Your task to perform on an android device: Search for "sony triple a" on ebay, select the first entry, add it to the cart, then select checkout. Image 0: 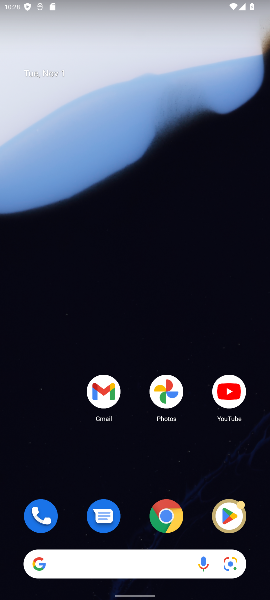
Step 0: click (162, 507)
Your task to perform on an android device: Search for "sony triple a" on ebay, select the first entry, add it to the cart, then select checkout. Image 1: 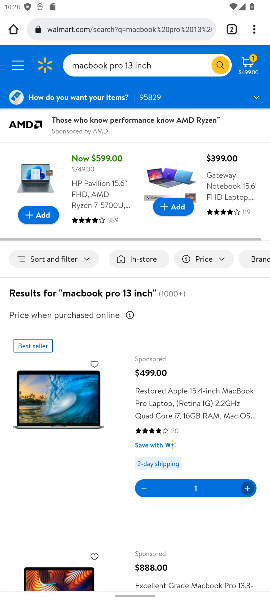
Step 1: click (232, 32)
Your task to perform on an android device: Search for "sony triple a" on ebay, select the first entry, add it to the cart, then select checkout. Image 2: 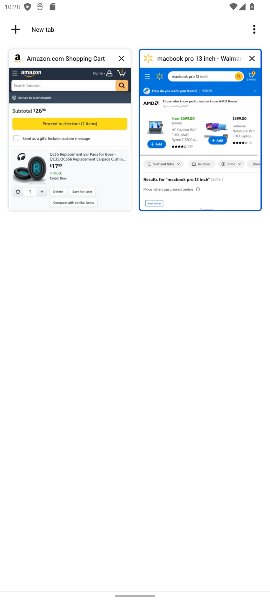
Step 2: click (14, 31)
Your task to perform on an android device: Search for "sony triple a" on ebay, select the first entry, add it to the cart, then select checkout. Image 3: 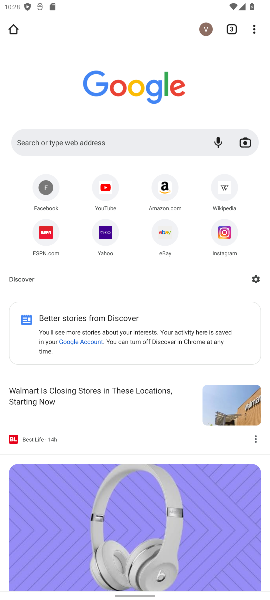
Step 3: click (120, 150)
Your task to perform on an android device: Search for "sony triple a" on ebay, select the first entry, add it to the cart, then select checkout. Image 4: 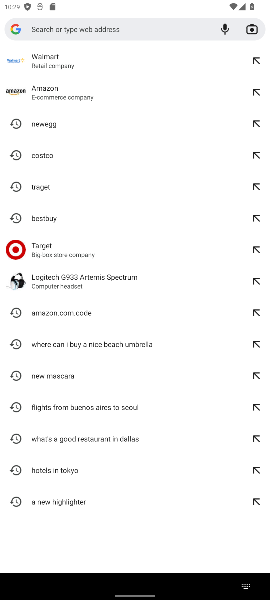
Step 4: type "ebay"
Your task to perform on an android device: Search for "sony triple a" on ebay, select the first entry, add it to the cart, then select checkout. Image 5: 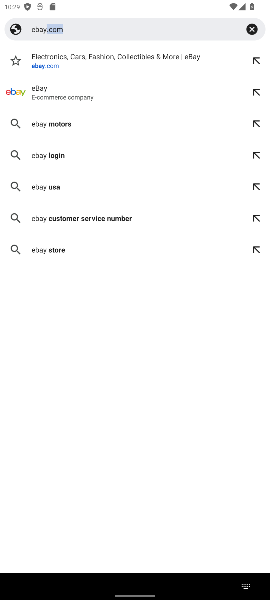
Step 5: click (76, 100)
Your task to perform on an android device: Search for "sony triple a" on ebay, select the first entry, add it to the cart, then select checkout. Image 6: 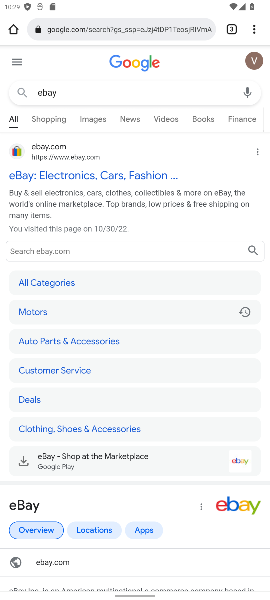
Step 6: click (70, 174)
Your task to perform on an android device: Search for "sony triple a" on ebay, select the first entry, add it to the cart, then select checkout. Image 7: 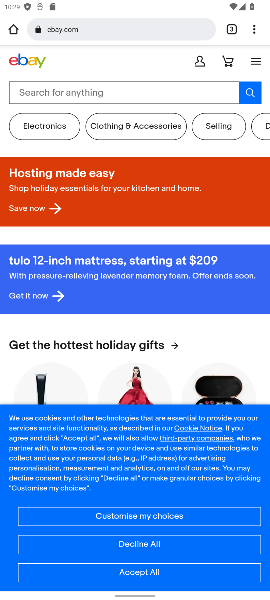
Step 7: click (139, 547)
Your task to perform on an android device: Search for "sony triple a" on ebay, select the first entry, add it to the cart, then select checkout. Image 8: 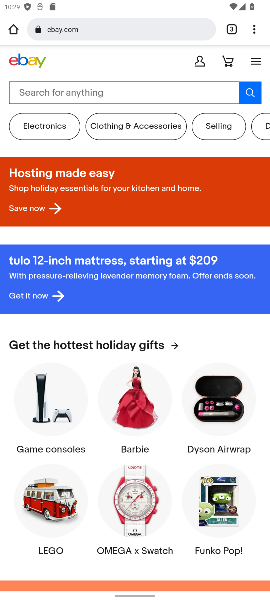
Step 8: click (88, 90)
Your task to perform on an android device: Search for "sony triple a" on ebay, select the first entry, add it to the cart, then select checkout. Image 9: 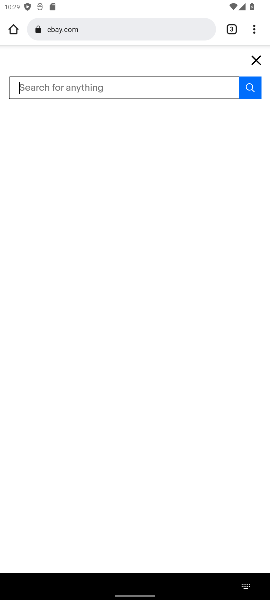
Step 9: type "sony trlpe a battery"
Your task to perform on an android device: Search for "sony triple a" on ebay, select the first entry, add it to the cart, then select checkout. Image 10: 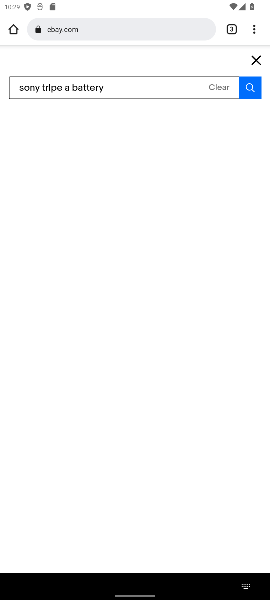
Step 10: click (249, 87)
Your task to perform on an android device: Search for "sony triple a" on ebay, select the first entry, add it to the cart, then select checkout. Image 11: 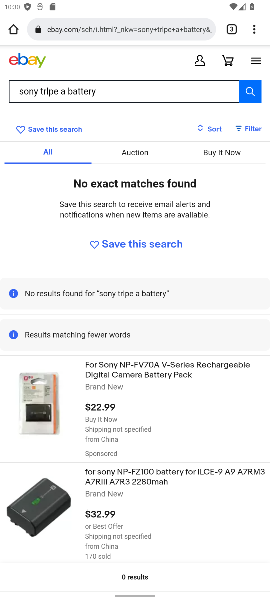
Step 11: click (119, 366)
Your task to perform on an android device: Search for "sony triple a" on ebay, select the first entry, add it to the cart, then select checkout. Image 12: 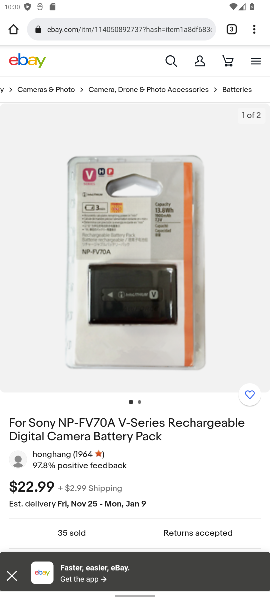
Step 12: drag from (136, 473) to (175, 276)
Your task to perform on an android device: Search for "sony triple a" on ebay, select the first entry, add it to the cart, then select checkout. Image 13: 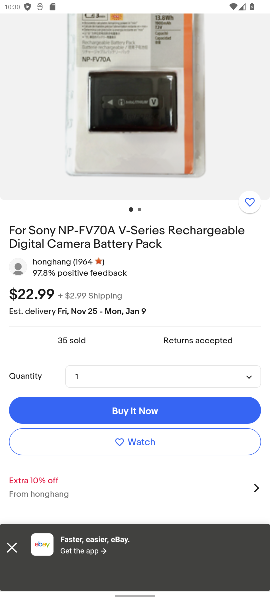
Step 13: press back button
Your task to perform on an android device: Search for "sony triple a" on ebay, select the first entry, add it to the cart, then select checkout. Image 14: 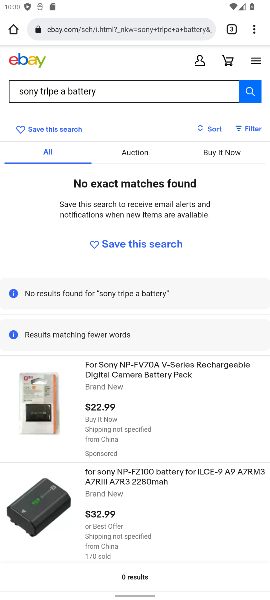
Step 14: drag from (134, 492) to (162, 223)
Your task to perform on an android device: Search for "sony triple a" on ebay, select the first entry, add it to the cart, then select checkout. Image 15: 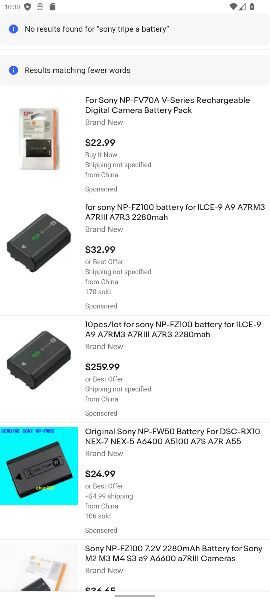
Step 15: click (121, 554)
Your task to perform on an android device: Search for "sony triple a" on ebay, select the first entry, add it to the cart, then select checkout. Image 16: 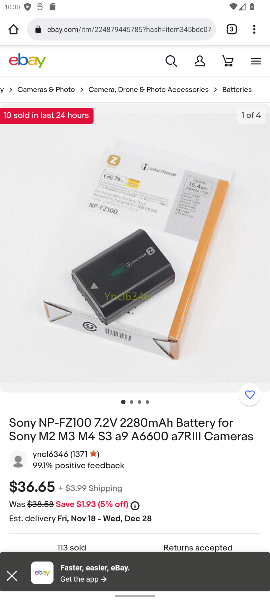
Step 16: drag from (143, 462) to (208, 237)
Your task to perform on an android device: Search for "sony triple a" on ebay, select the first entry, add it to the cart, then select checkout. Image 17: 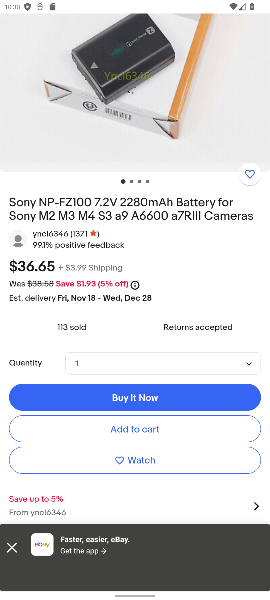
Step 17: click (136, 431)
Your task to perform on an android device: Search for "sony triple a" on ebay, select the first entry, add it to the cart, then select checkout. Image 18: 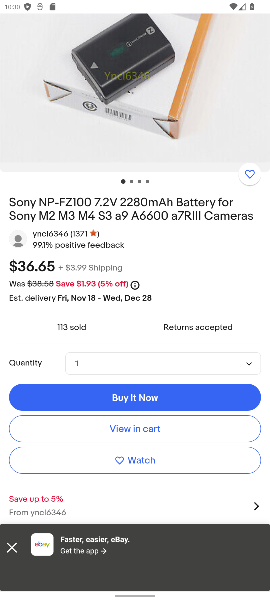
Step 18: task complete